Your task to perform on an android device: set an alarm Image 0: 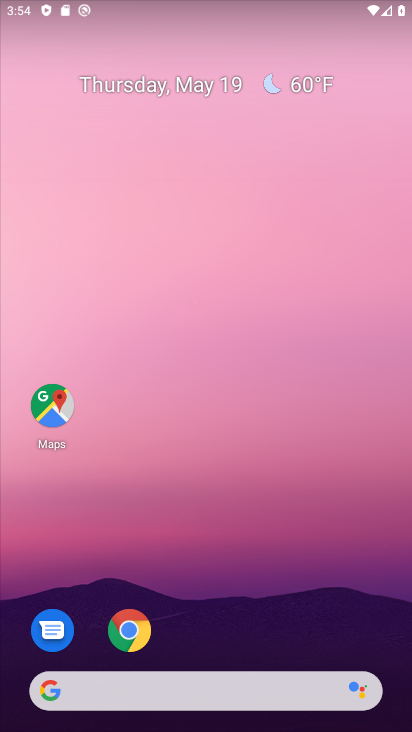
Step 0: drag from (211, 726) to (215, 42)
Your task to perform on an android device: set an alarm Image 1: 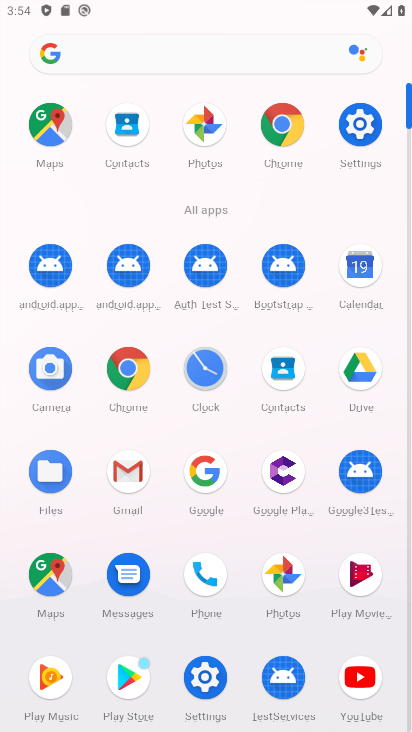
Step 1: click (201, 364)
Your task to perform on an android device: set an alarm Image 2: 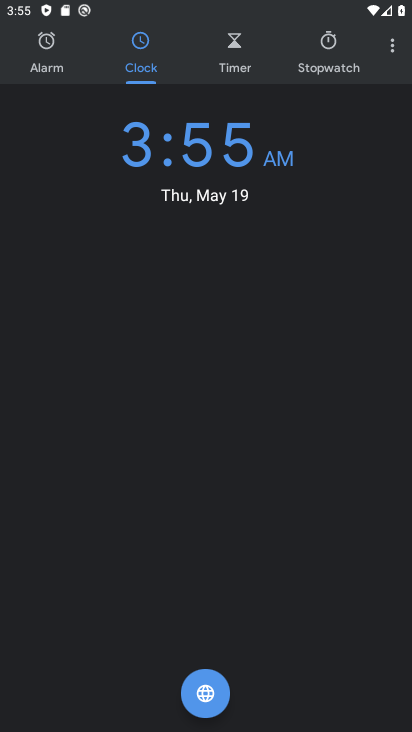
Step 2: click (48, 49)
Your task to perform on an android device: set an alarm Image 3: 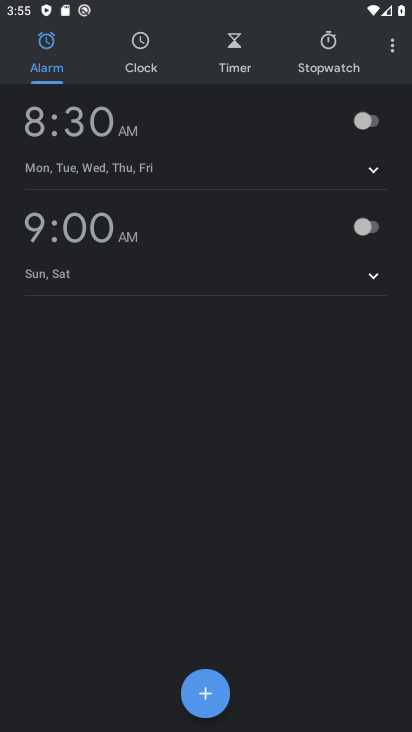
Step 3: click (209, 694)
Your task to perform on an android device: set an alarm Image 4: 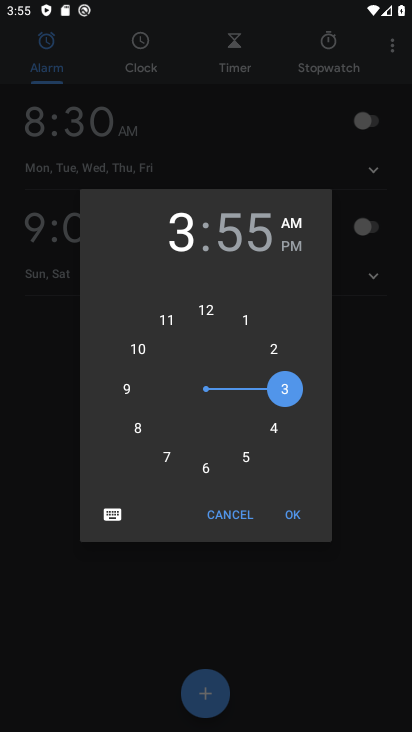
Step 4: click (210, 471)
Your task to perform on an android device: set an alarm Image 5: 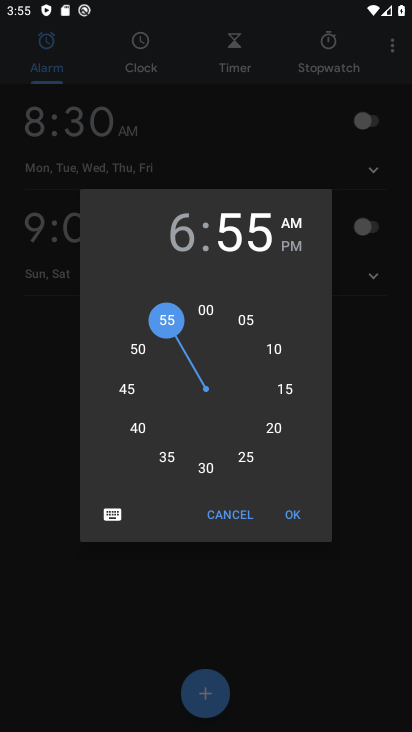
Step 5: click (289, 514)
Your task to perform on an android device: set an alarm Image 6: 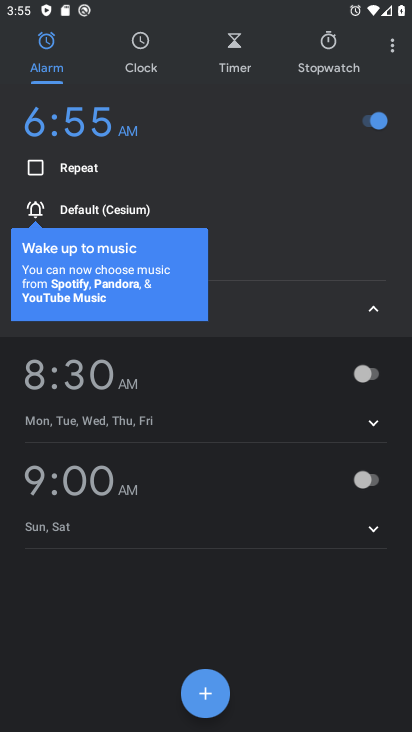
Step 6: task complete